Your task to perform on an android device: What is the news today? Image 0: 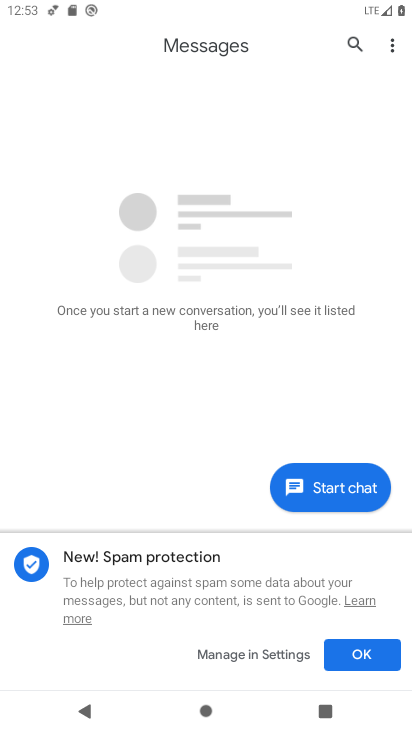
Step 0: press home button
Your task to perform on an android device: What is the news today? Image 1: 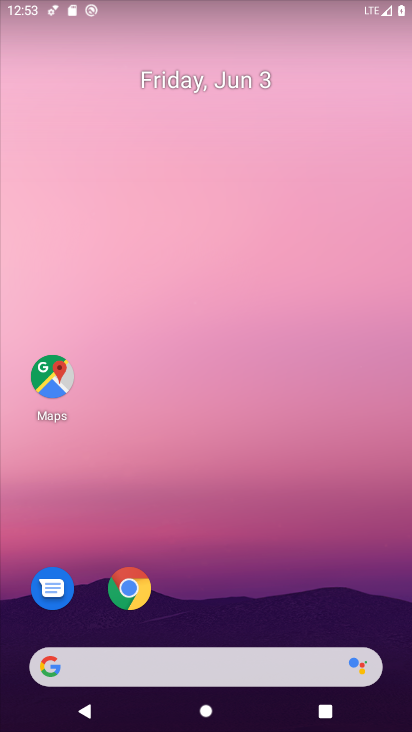
Step 1: drag from (280, 596) to (286, 103)
Your task to perform on an android device: What is the news today? Image 2: 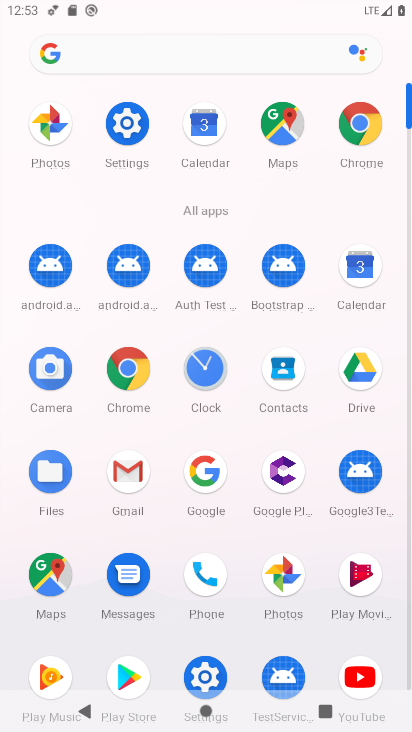
Step 2: click (274, 55)
Your task to perform on an android device: What is the news today? Image 3: 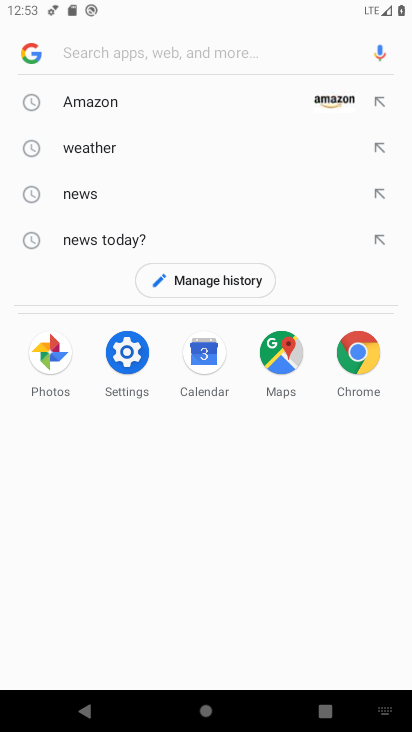
Step 3: click (138, 189)
Your task to perform on an android device: What is the news today? Image 4: 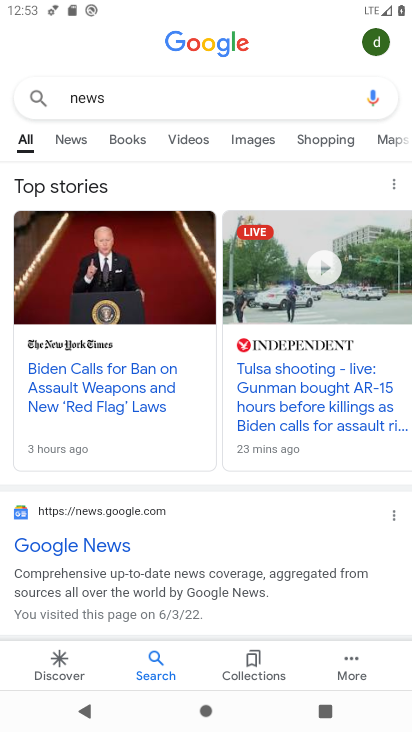
Step 4: task complete